Your task to perform on an android device: turn off notifications in google photos Image 0: 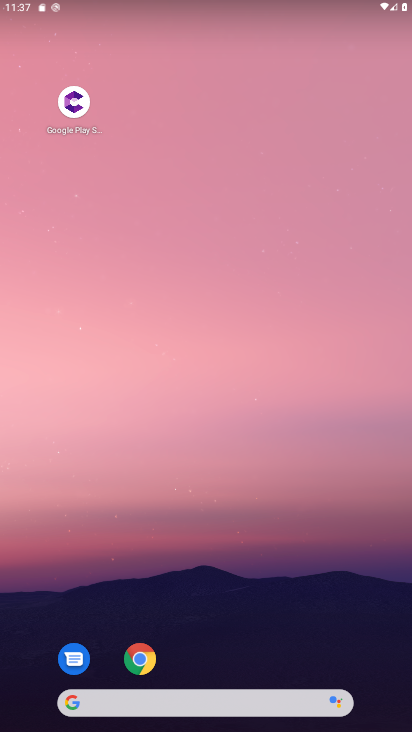
Step 0: drag from (282, 638) to (261, 33)
Your task to perform on an android device: turn off notifications in google photos Image 1: 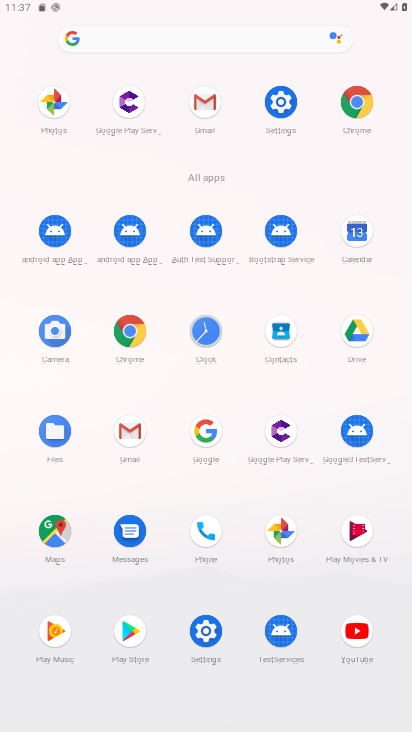
Step 1: click (52, 107)
Your task to perform on an android device: turn off notifications in google photos Image 2: 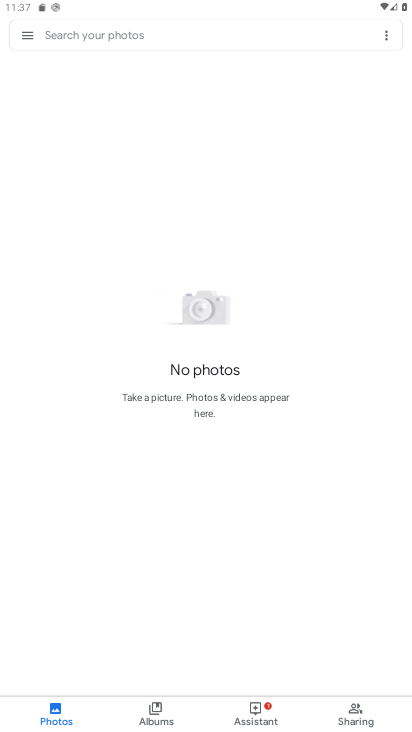
Step 2: click (33, 33)
Your task to perform on an android device: turn off notifications in google photos Image 3: 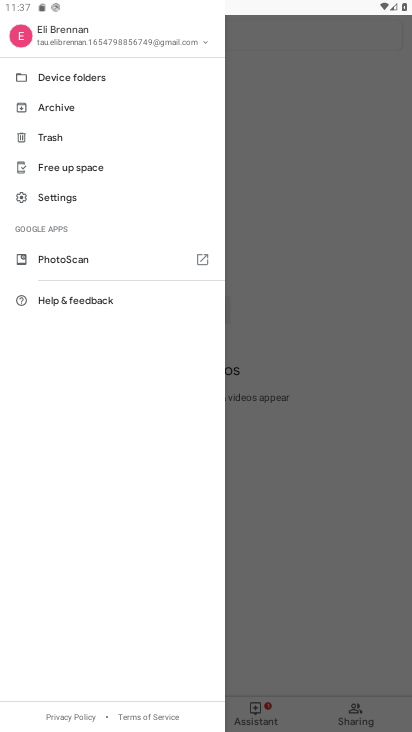
Step 3: click (62, 192)
Your task to perform on an android device: turn off notifications in google photos Image 4: 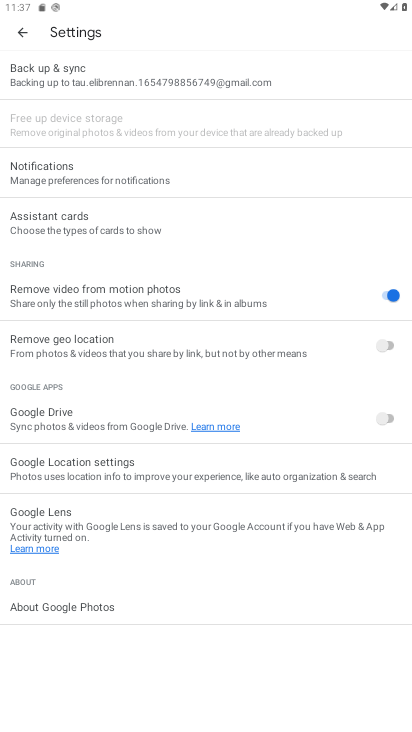
Step 4: click (88, 172)
Your task to perform on an android device: turn off notifications in google photos Image 5: 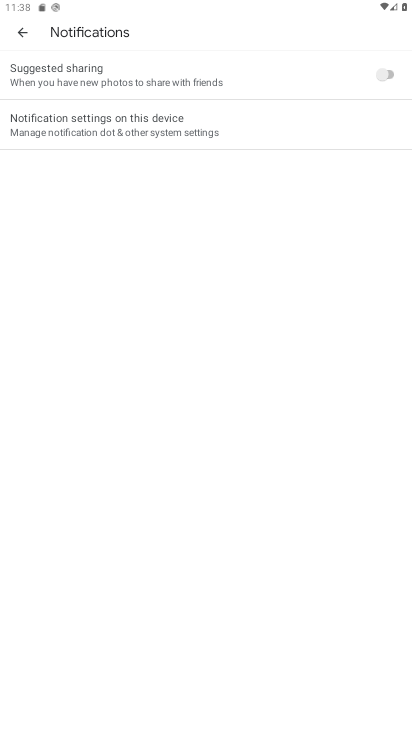
Step 5: click (86, 126)
Your task to perform on an android device: turn off notifications in google photos Image 6: 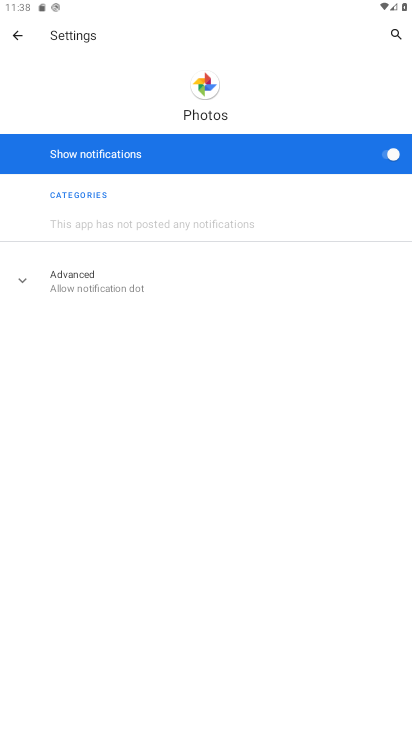
Step 6: click (397, 153)
Your task to perform on an android device: turn off notifications in google photos Image 7: 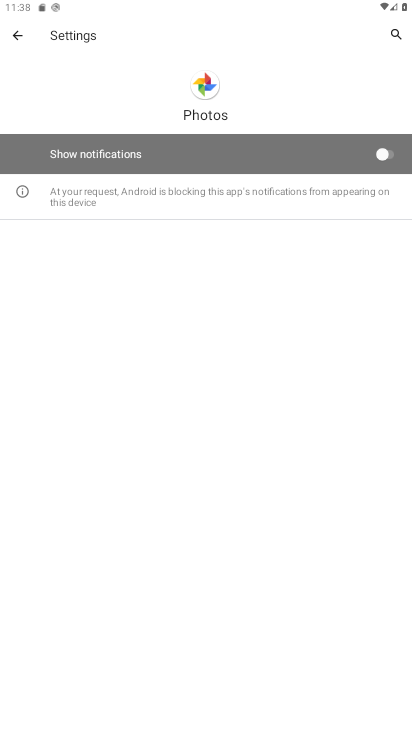
Step 7: task complete